Your task to perform on an android device: toggle show notifications on the lock screen Image 0: 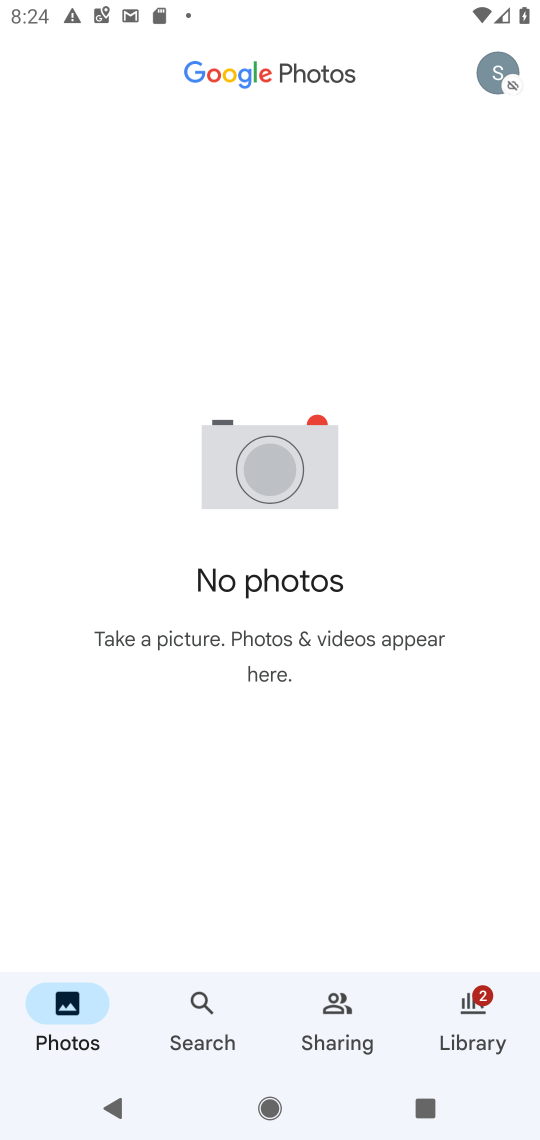
Step 0: press home button
Your task to perform on an android device: toggle show notifications on the lock screen Image 1: 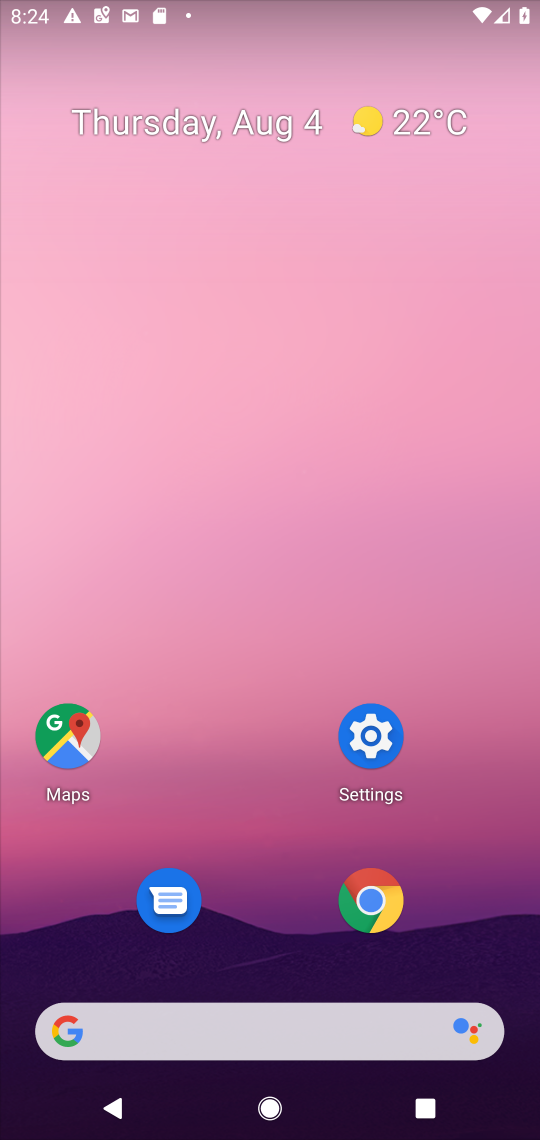
Step 1: click (366, 744)
Your task to perform on an android device: toggle show notifications on the lock screen Image 2: 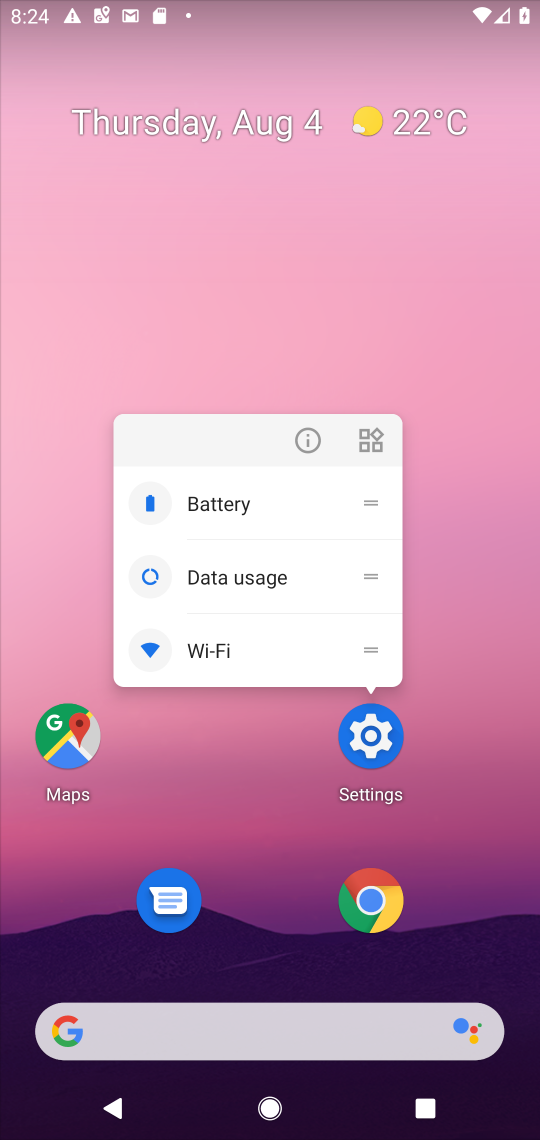
Step 2: click (375, 736)
Your task to perform on an android device: toggle show notifications on the lock screen Image 3: 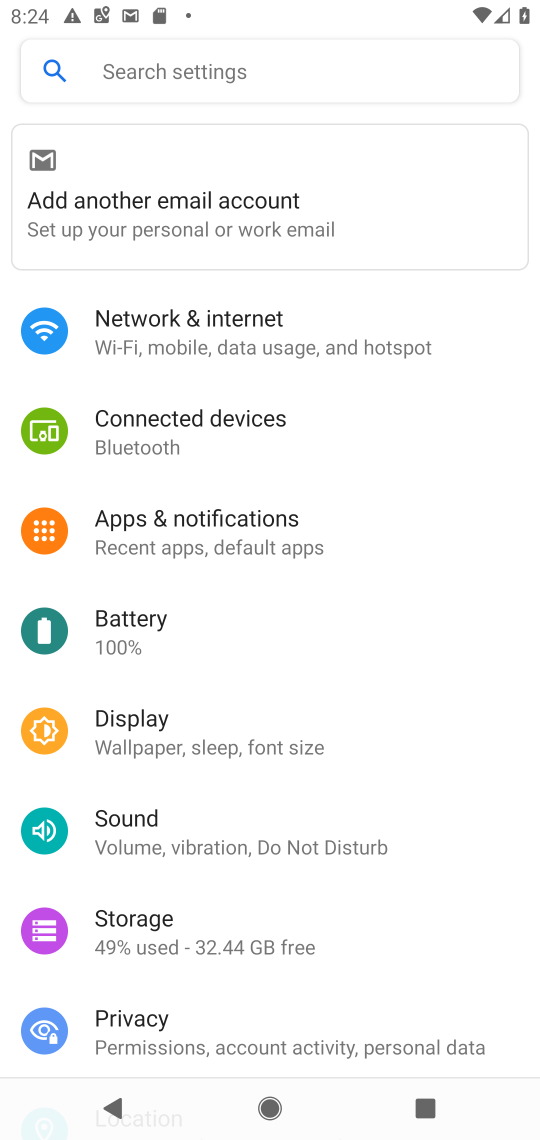
Step 3: click (232, 513)
Your task to perform on an android device: toggle show notifications on the lock screen Image 4: 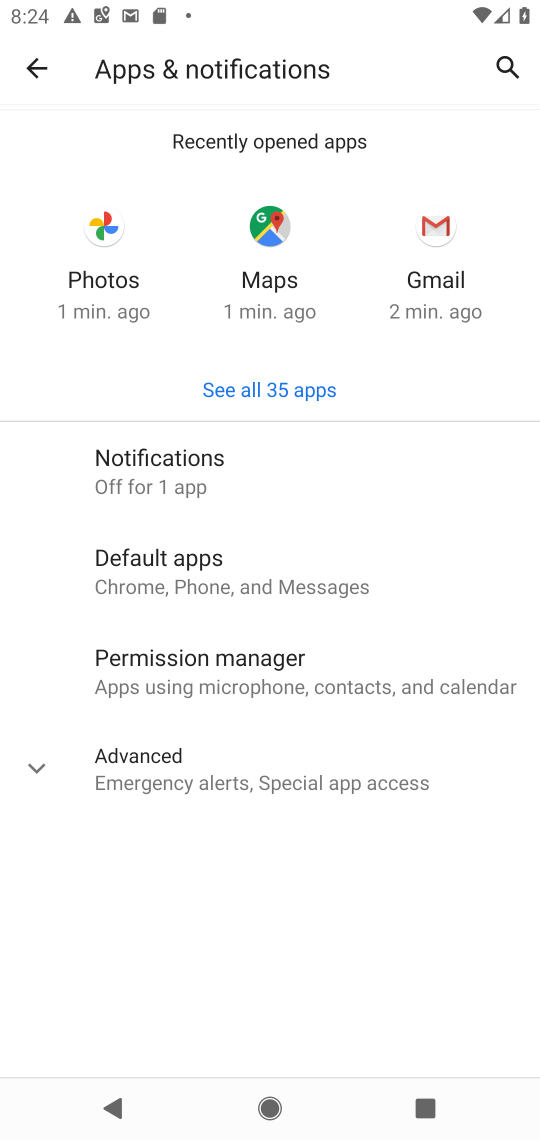
Step 4: click (194, 475)
Your task to perform on an android device: toggle show notifications on the lock screen Image 5: 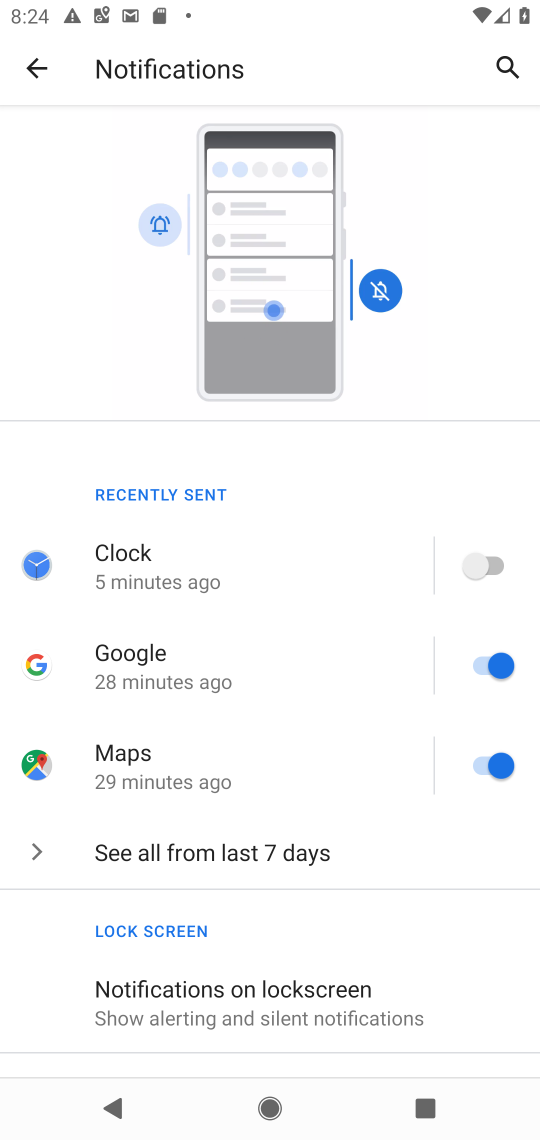
Step 5: drag from (259, 883) to (352, 450)
Your task to perform on an android device: toggle show notifications on the lock screen Image 6: 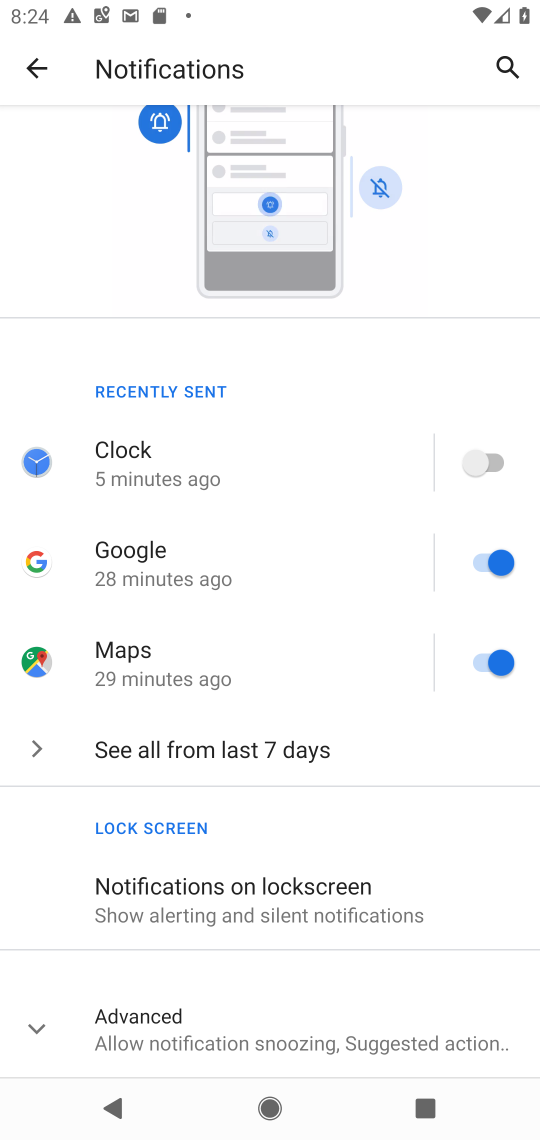
Step 6: click (220, 898)
Your task to perform on an android device: toggle show notifications on the lock screen Image 7: 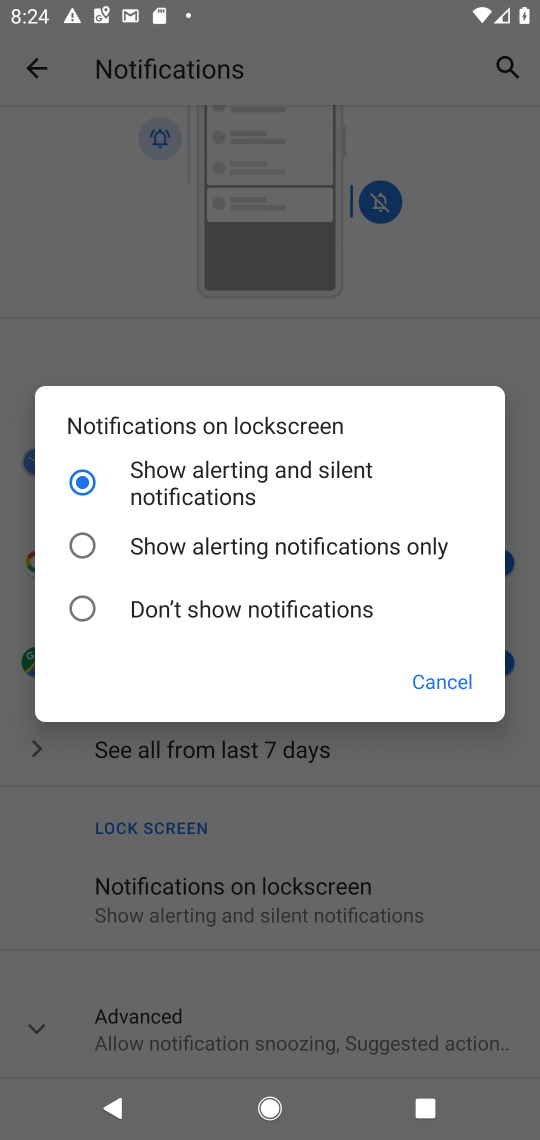
Step 7: click (77, 605)
Your task to perform on an android device: toggle show notifications on the lock screen Image 8: 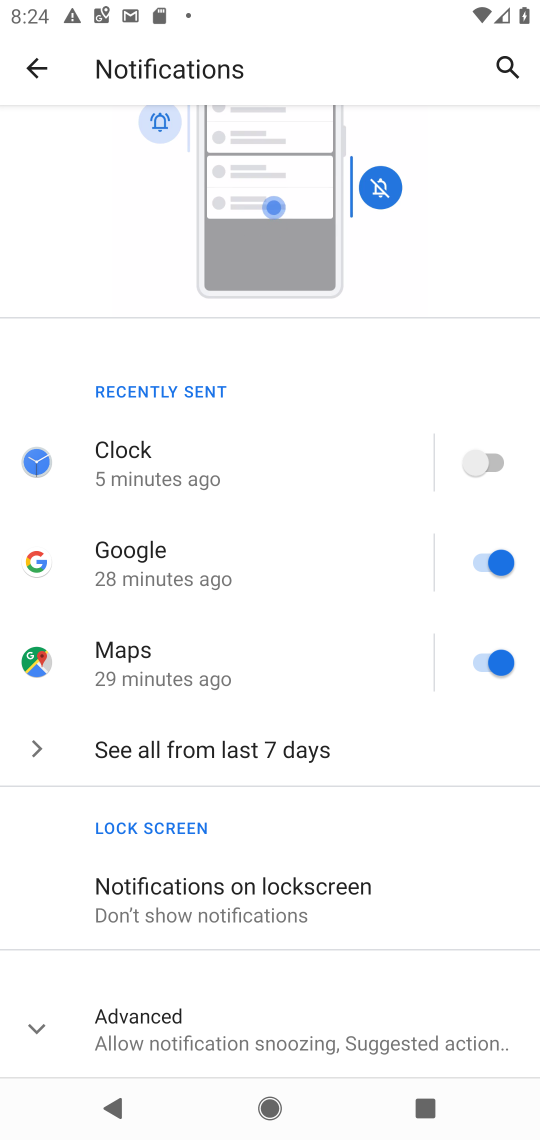
Step 8: task complete